Your task to perform on an android device: turn off wifi Image 0: 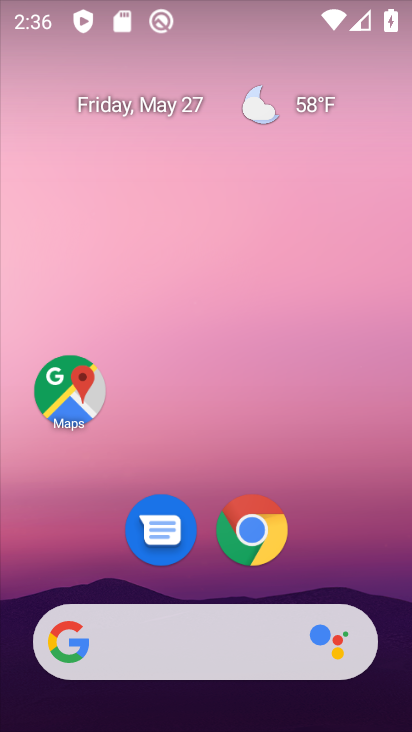
Step 0: drag from (66, 606) to (211, 216)
Your task to perform on an android device: turn off wifi Image 1: 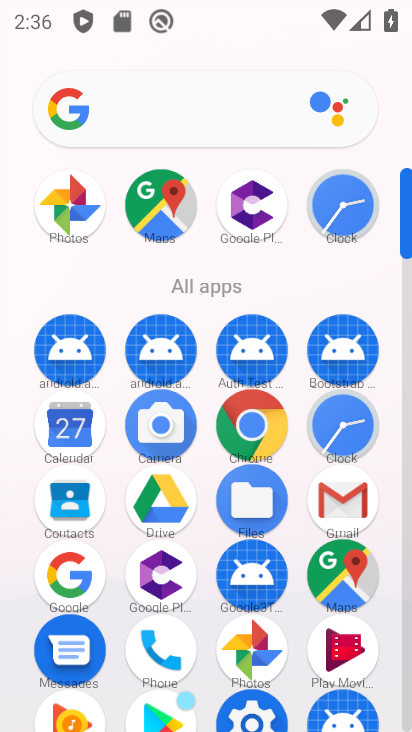
Step 1: drag from (140, 638) to (281, 307)
Your task to perform on an android device: turn off wifi Image 2: 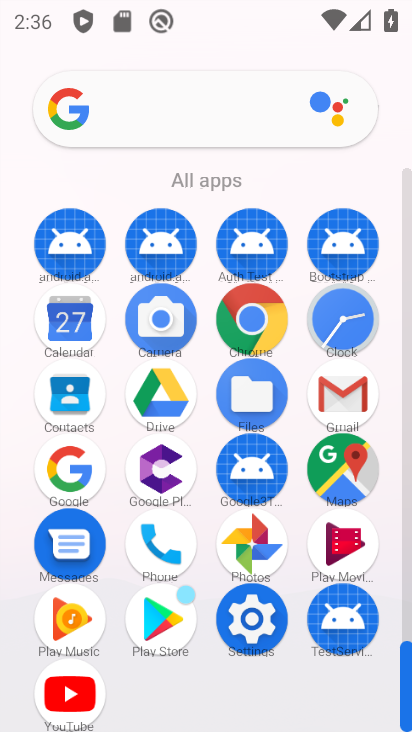
Step 2: click (248, 633)
Your task to perform on an android device: turn off wifi Image 3: 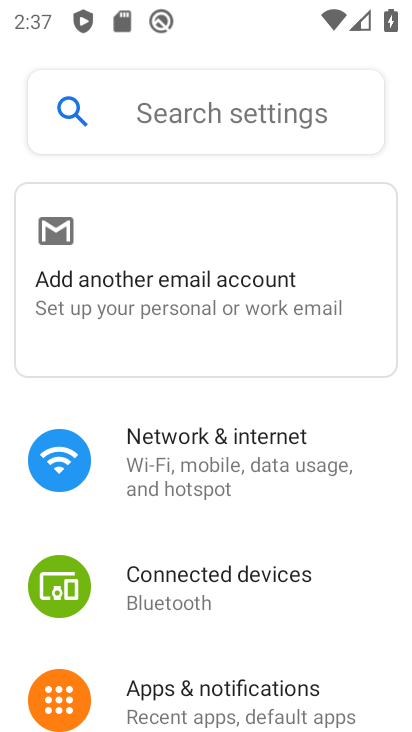
Step 3: click (249, 474)
Your task to perform on an android device: turn off wifi Image 4: 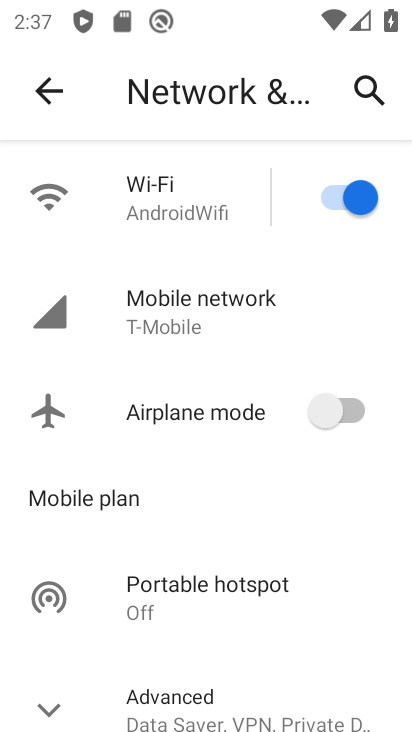
Step 4: click (330, 183)
Your task to perform on an android device: turn off wifi Image 5: 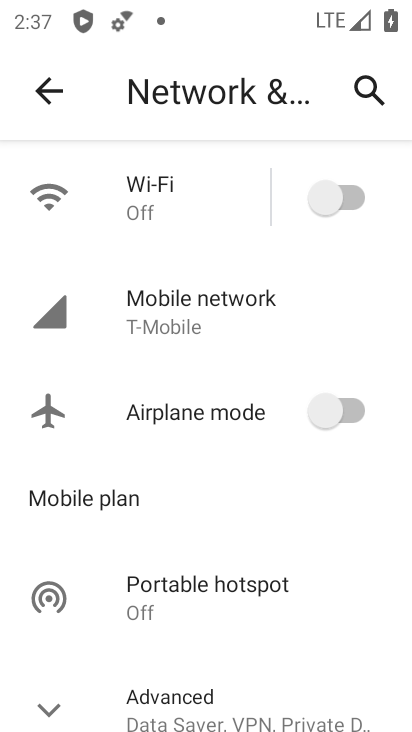
Step 5: task complete